Your task to perform on an android device: Go to eBay Image 0: 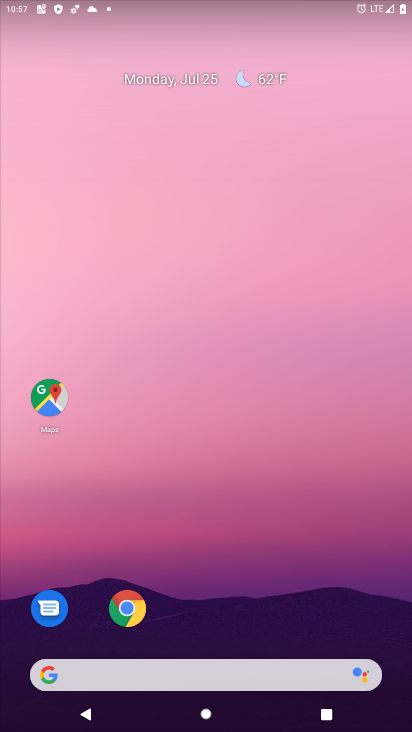
Step 0: drag from (208, 627) to (164, 0)
Your task to perform on an android device: Go to eBay Image 1: 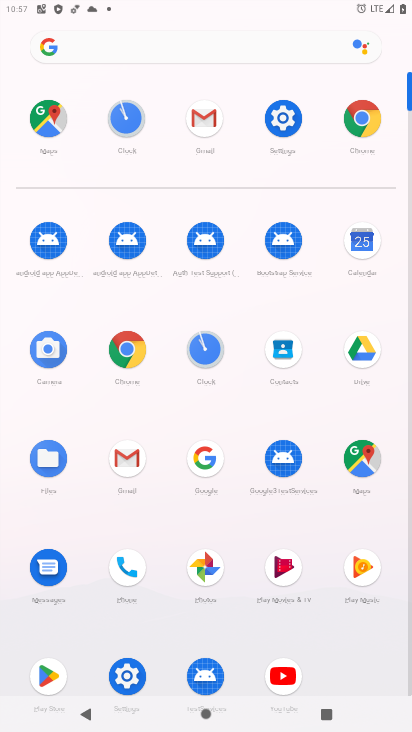
Step 1: click (127, 355)
Your task to perform on an android device: Go to eBay Image 2: 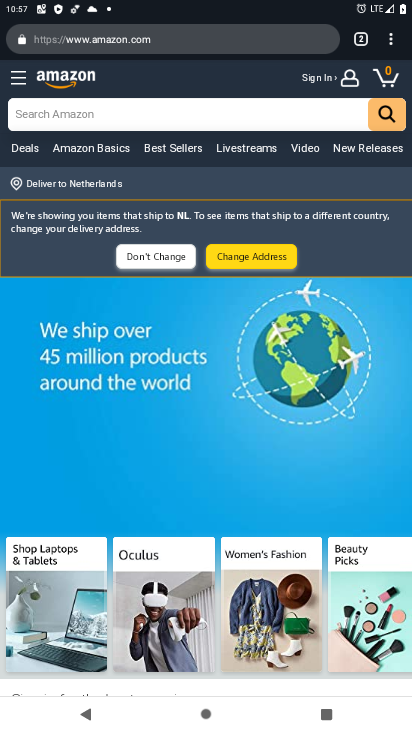
Step 2: click (160, 31)
Your task to perform on an android device: Go to eBay Image 3: 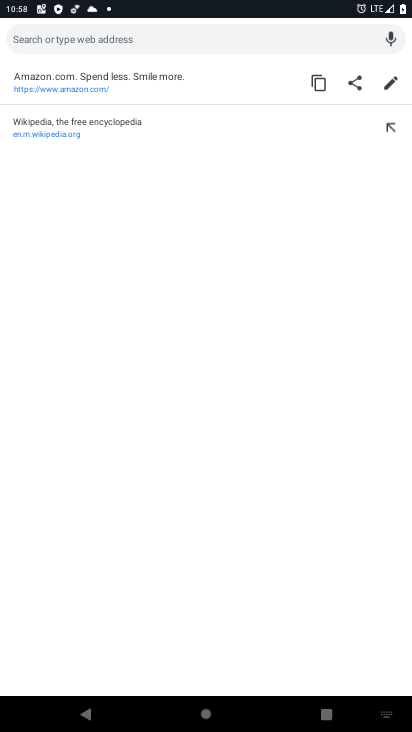
Step 3: type "eBay"
Your task to perform on an android device: Go to eBay Image 4: 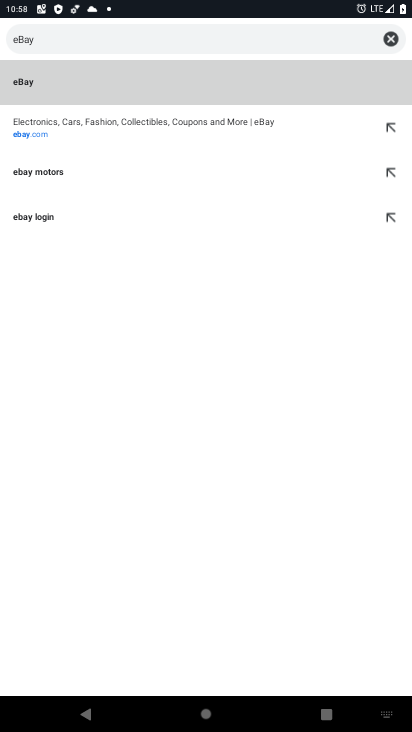
Step 4: click (78, 74)
Your task to perform on an android device: Go to eBay Image 5: 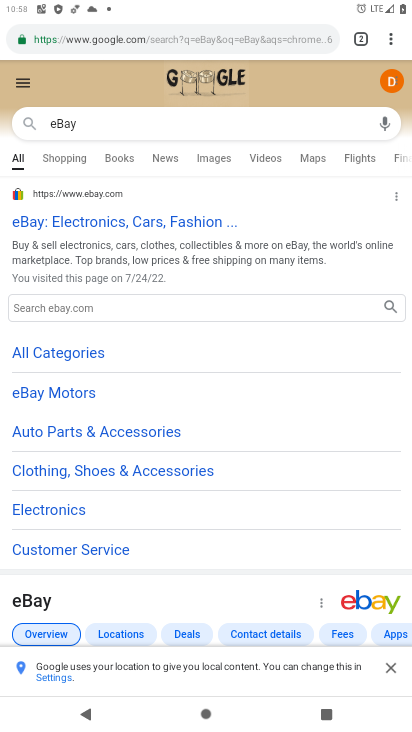
Step 5: task complete